Your task to perform on an android device: turn off location history Image 0: 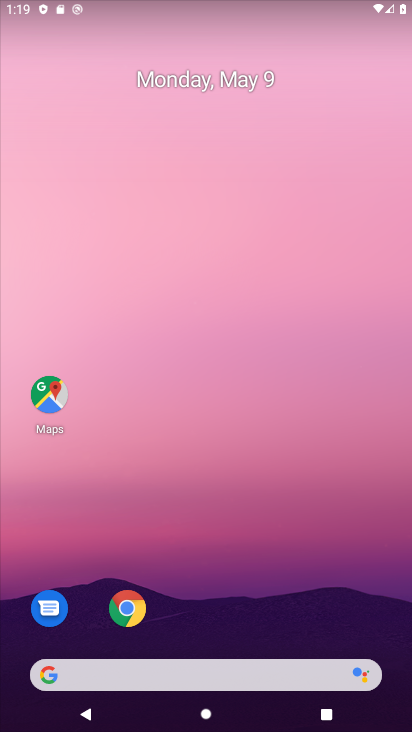
Step 0: drag from (256, 616) to (157, 98)
Your task to perform on an android device: turn off location history Image 1: 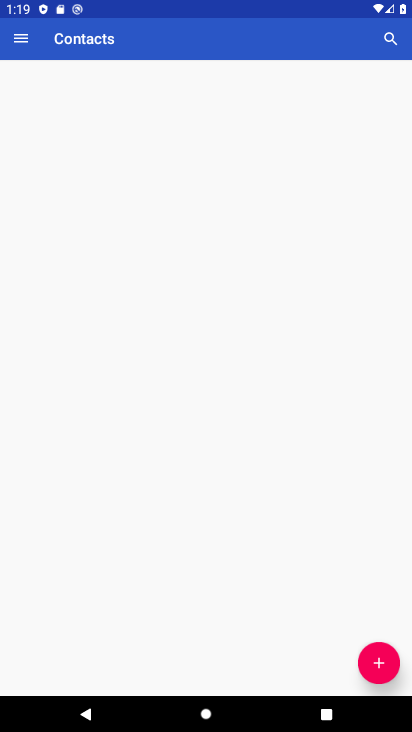
Step 1: press home button
Your task to perform on an android device: turn off location history Image 2: 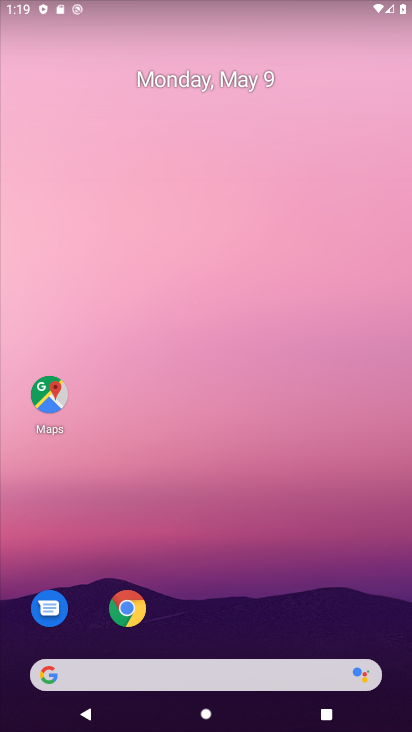
Step 2: drag from (281, 584) to (190, 88)
Your task to perform on an android device: turn off location history Image 3: 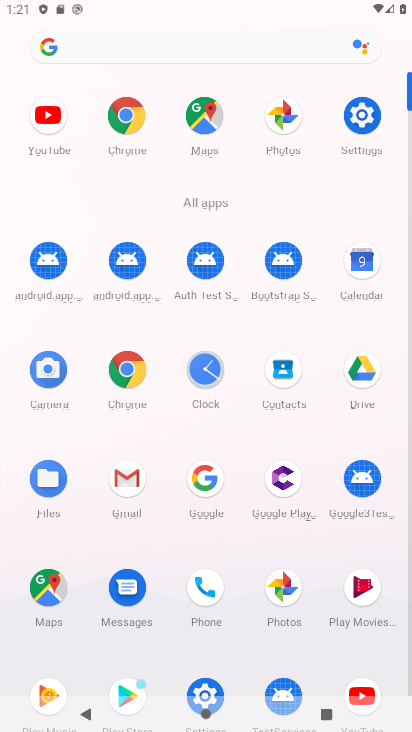
Step 3: click (60, 575)
Your task to perform on an android device: turn off location history Image 4: 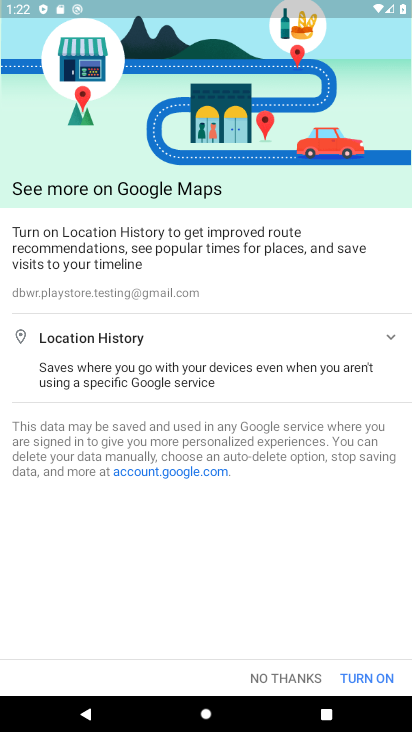
Step 4: click (300, 679)
Your task to perform on an android device: turn off location history Image 5: 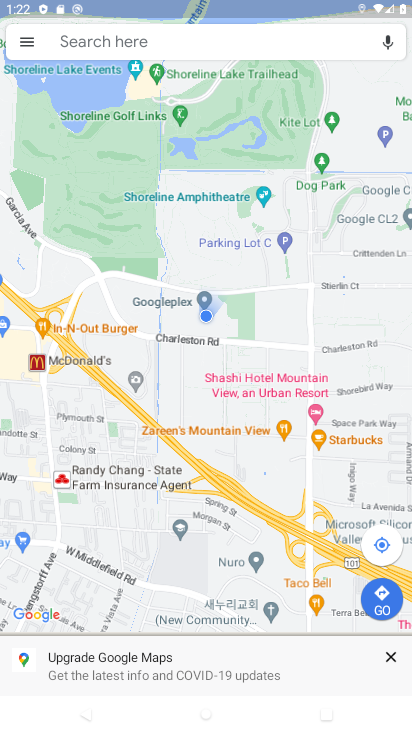
Step 5: click (35, 42)
Your task to perform on an android device: turn off location history Image 6: 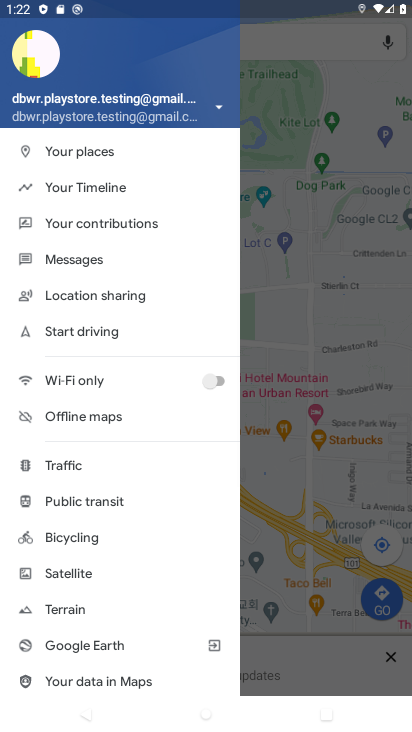
Step 6: click (84, 190)
Your task to perform on an android device: turn off location history Image 7: 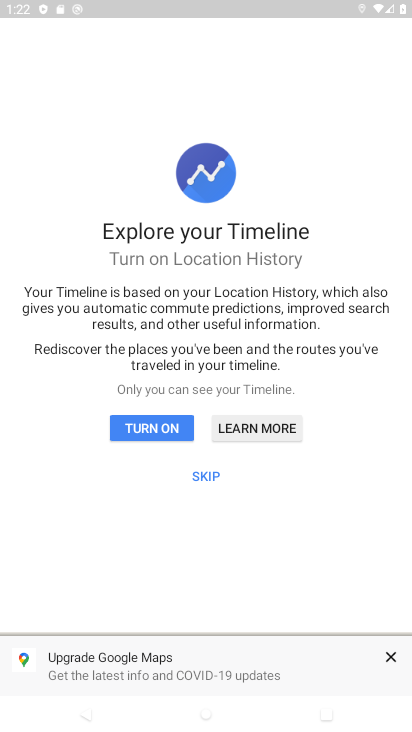
Step 7: click (203, 482)
Your task to perform on an android device: turn off location history Image 8: 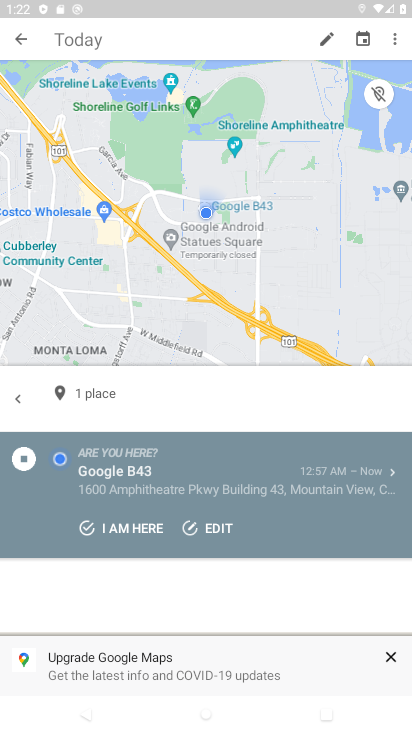
Step 8: click (384, 46)
Your task to perform on an android device: turn off location history Image 9: 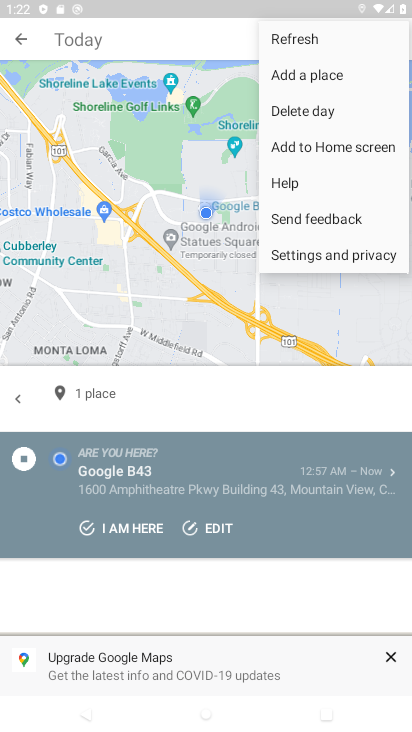
Step 9: click (334, 252)
Your task to perform on an android device: turn off location history Image 10: 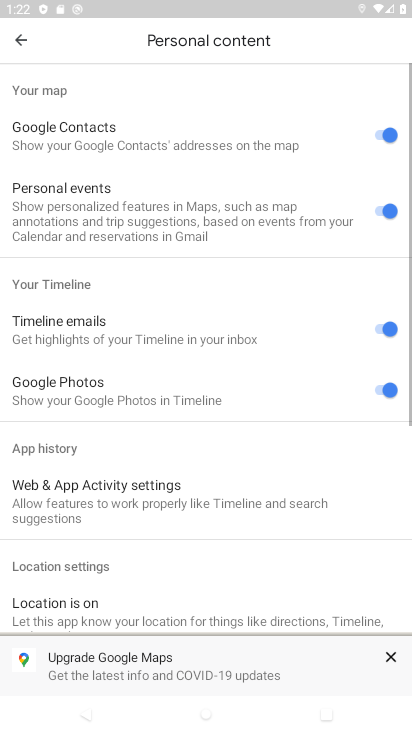
Step 10: drag from (119, 525) to (134, 222)
Your task to perform on an android device: turn off location history Image 11: 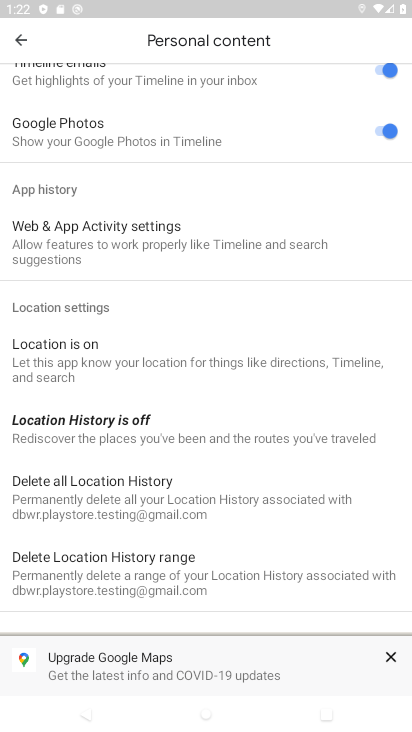
Step 11: click (36, 415)
Your task to perform on an android device: turn off location history Image 12: 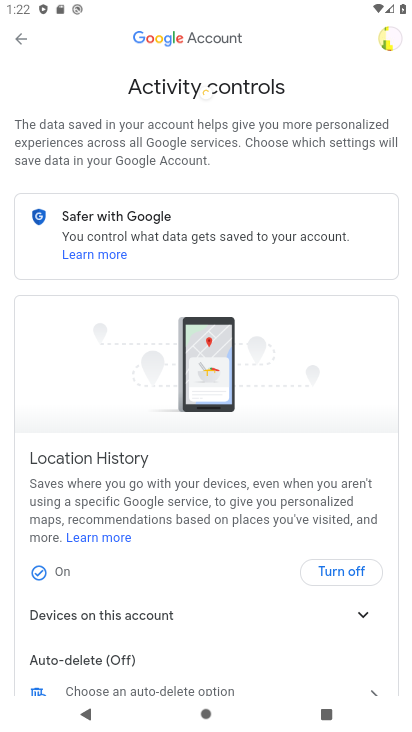
Step 12: drag from (163, 630) to (209, 454)
Your task to perform on an android device: turn off location history Image 13: 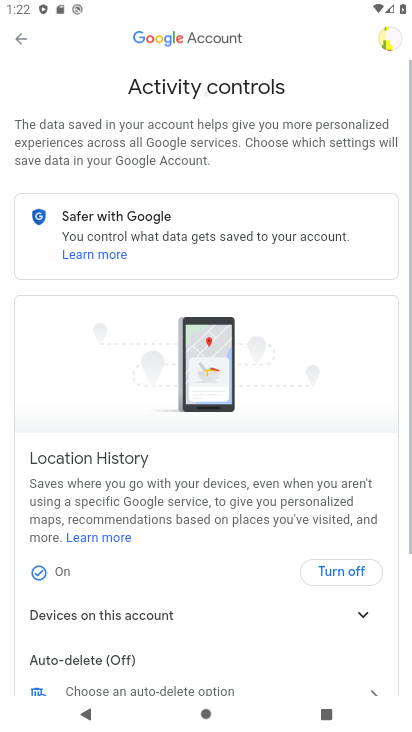
Step 13: drag from (325, 399) to (284, 188)
Your task to perform on an android device: turn off location history Image 14: 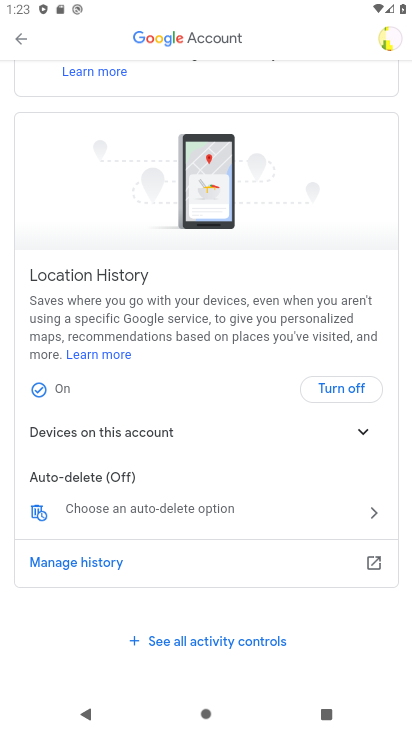
Step 14: click (357, 389)
Your task to perform on an android device: turn off location history Image 15: 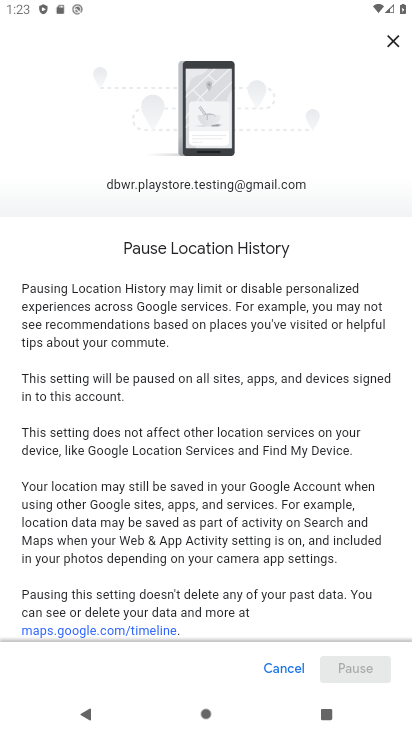
Step 15: drag from (296, 616) to (283, 312)
Your task to perform on an android device: turn off location history Image 16: 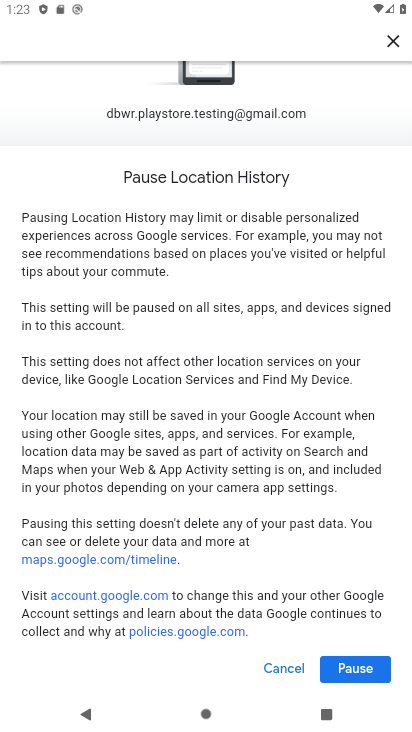
Step 16: click (350, 681)
Your task to perform on an android device: turn off location history Image 17: 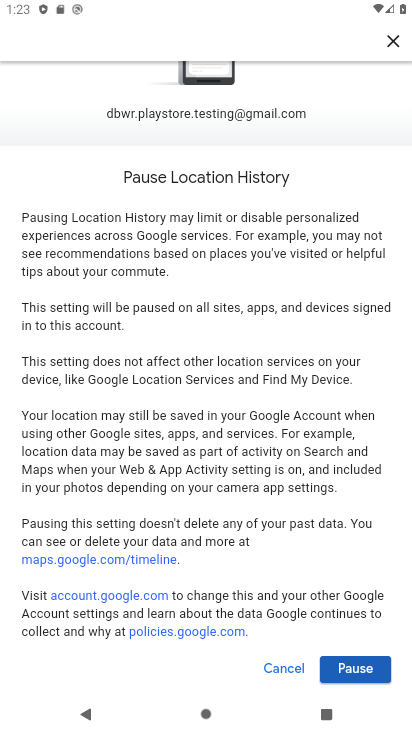
Step 17: click (352, 664)
Your task to perform on an android device: turn off location history Image 18: 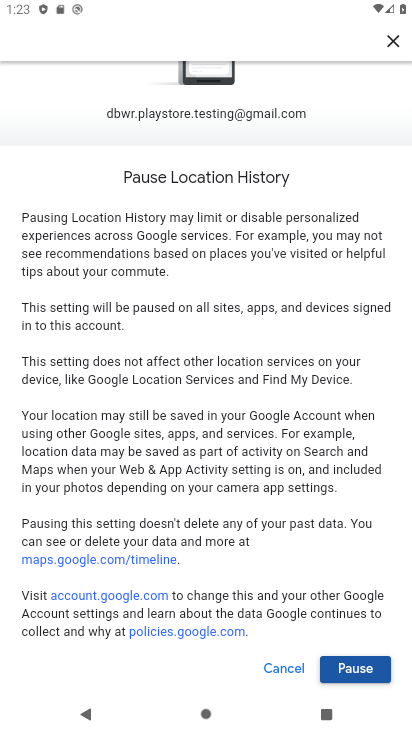
Step 18: click (346, 669)
Your task to perform on an android device: turn off location history Image 19: 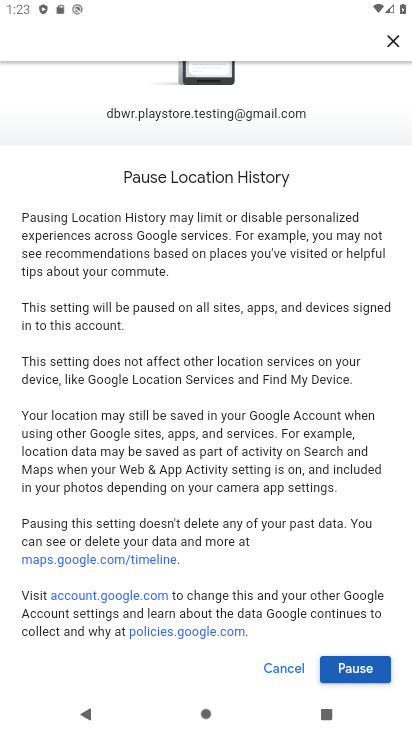
Step 19: click (341, 669)
Your task to perform on an android device: turn off location history Image 20: 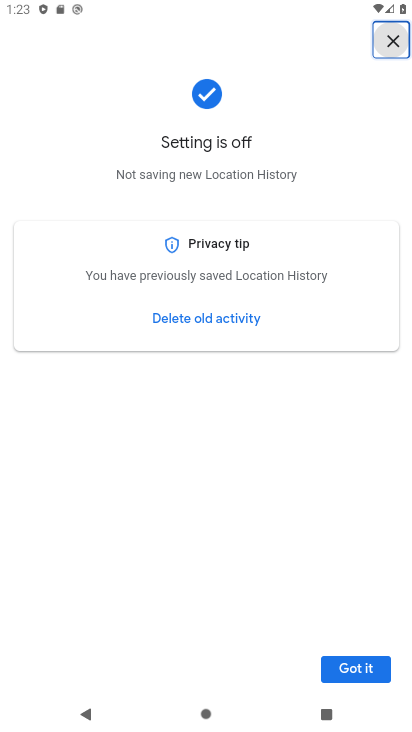
Step 20: click (346, 662)
Your task to perform on an android device: turn off location history Image 21: 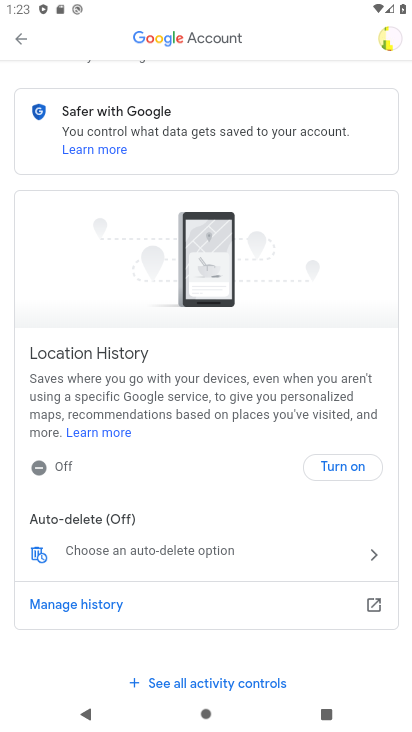
Step 21: task complete